Your task to perform on an android device: change notifications settings Image 0: 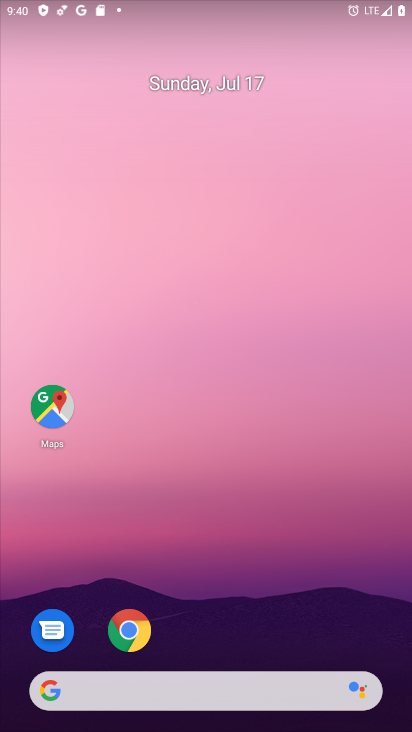
Step 0: press home button
Your task to perform on an android device: change notifications settings Image 1: 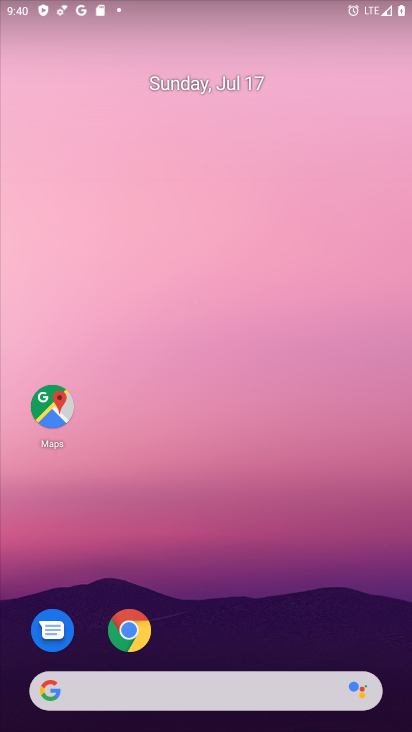
Step 1: drag from (221, 624) to (219, 33)
Your task to perform on an android device: change notifications settings Image 2: 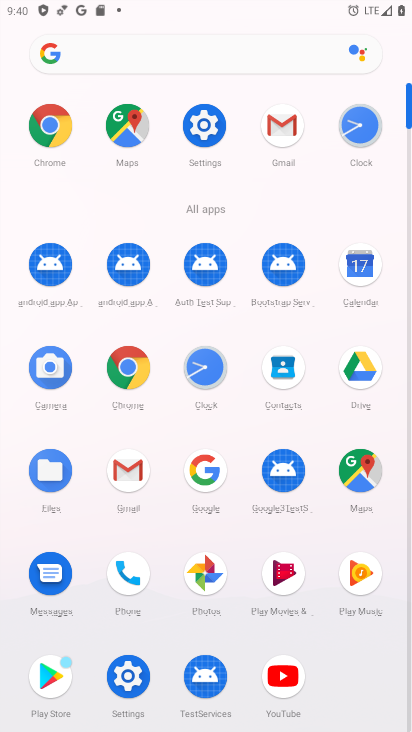
Step 2: click (200, 118)
Your task to perform on an android device: change notifications settings Image 3: 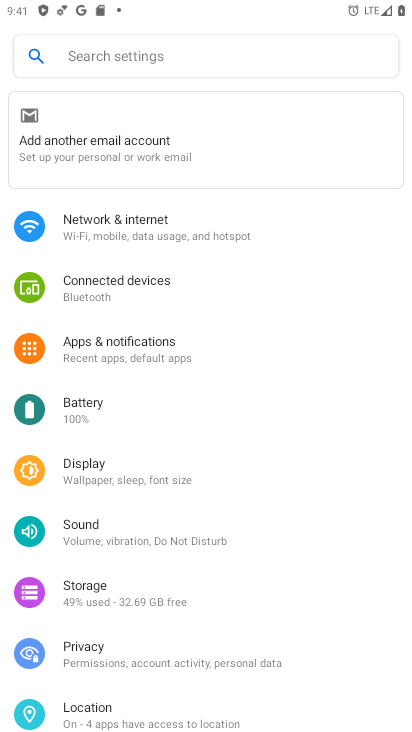
Step 3: click (151, 345)
Your task to perform on an android device: change notifications settings Image 4: 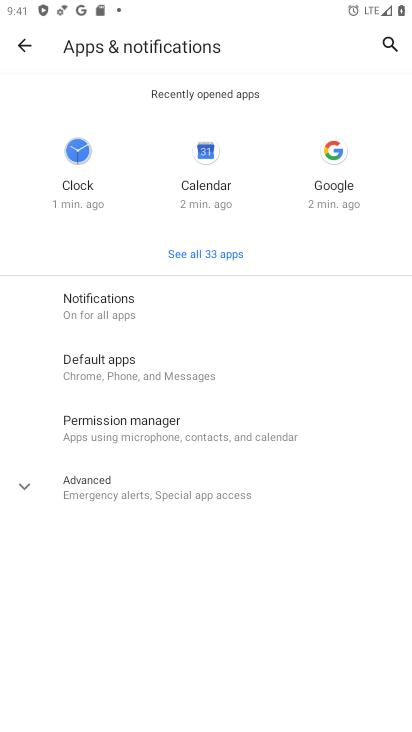
Step 4: click (145, 298)
Your task to perform on an android device: change notifications settings Image 5: 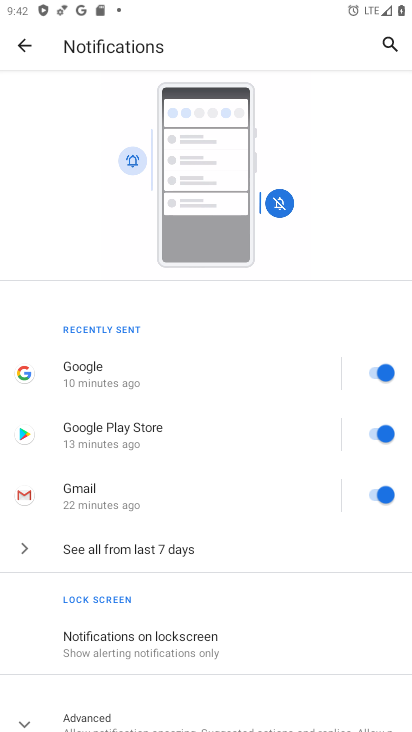
Step 5: drag from (180, 673) to (189, 374)
Your task to perform on an android device: change notifications settings Image 6: 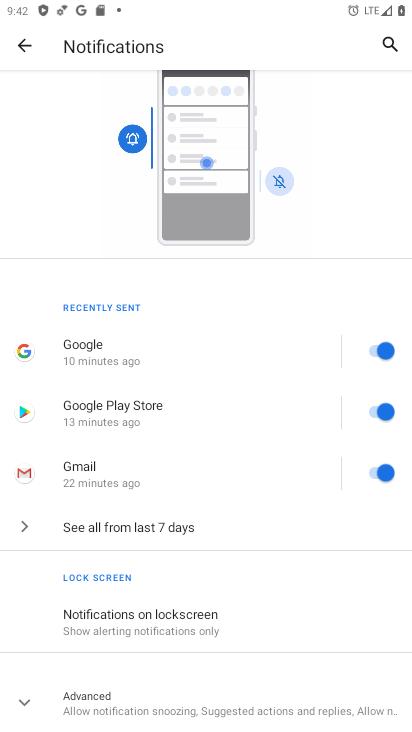
Step 6: click (20, 699)
Your task to perform on an android device: change notifications settings Image 7: 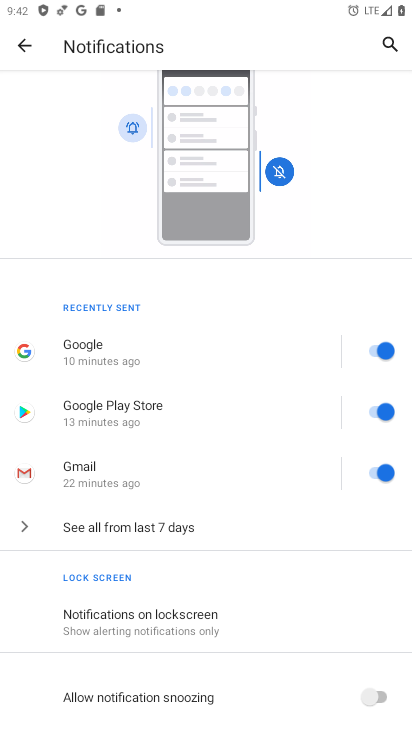
Step 7: task complete